Your task to perform on an android device: see sites visited before in the chrome app Image 0: 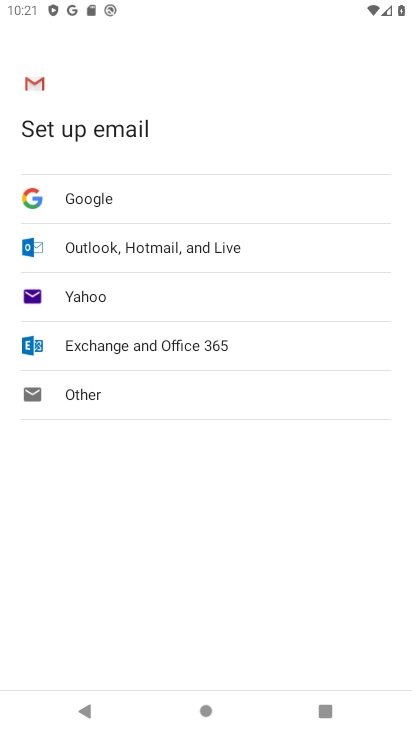
Step 0: press home button
Your task to perform on an android device: see sites visited before in the chrome app Image 1: 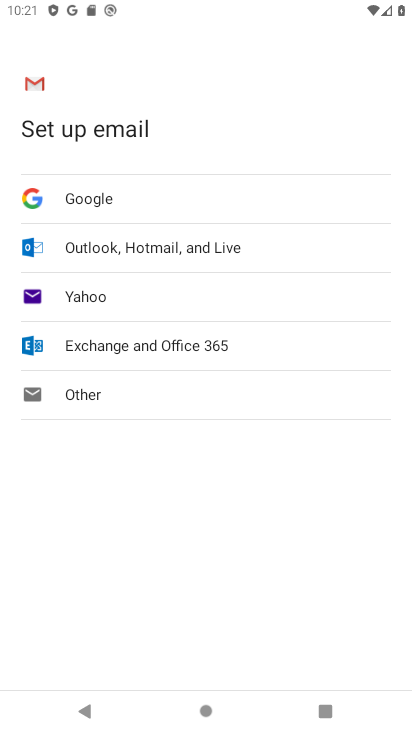
Step 1: press home button
Your task to perform on an android device: see sites visited before in the chrome app Image 2: 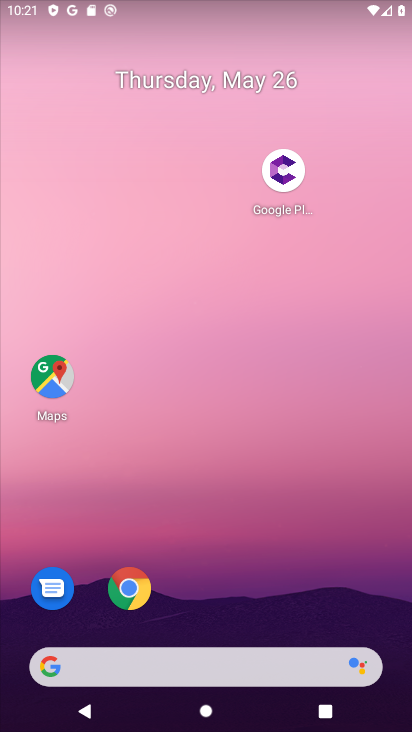
Step 2: drag from (281, 700) to (101, 2)
Your task to perform on an android device: see sites visited before in the chrome app Image 3: 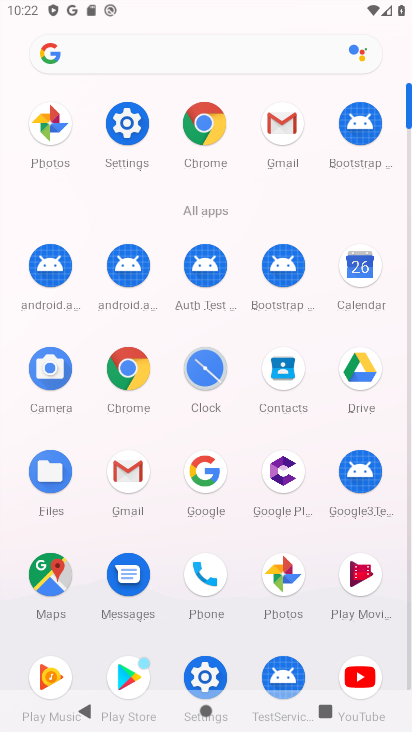
Step 3: click (185, 138)
Your task to perform on an android device: see sites visited before in the chrome app Image 4: 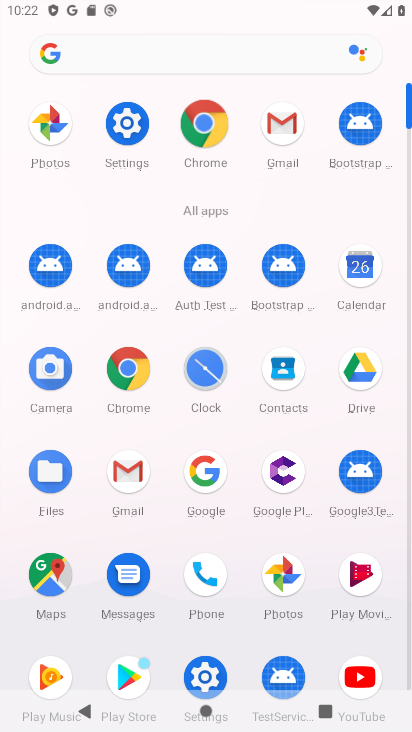
Step 4: click (197, 145)
Your task to perform on an android device: see sites visited before in the chrome app Image 5: 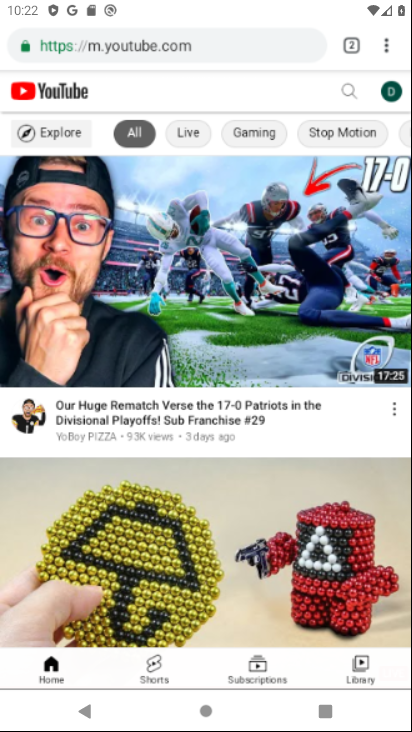
Step 5: click (199, 143)
Your task to perform on an android device: see sites visited before in the chrome app Image 6: 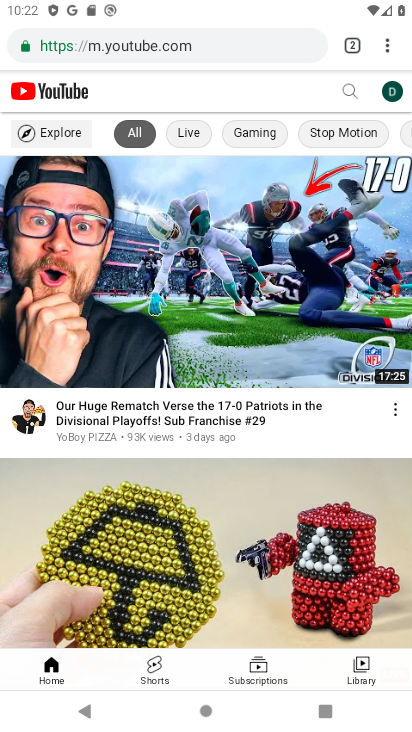
Step 6: drag from (378, 48) to (221, 503)
Your task to perform on an android device: see sites visited before in the chrome app Image 7: 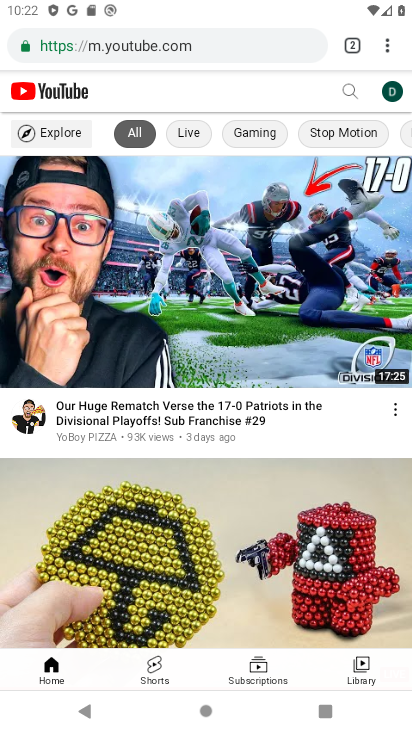
Step 7: click (220, 500)
Your task to perform on an android device: see sites visited before in the chrome app Image 8: 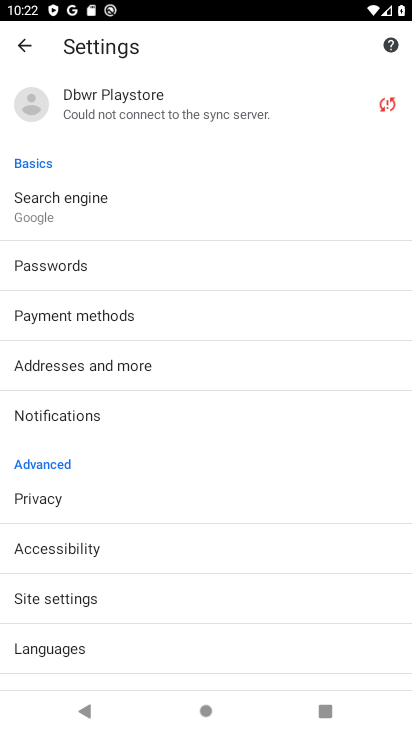
Step 8: click (18, 42)
Your task to perform on an android device: see sites visited before in the chrome app Image 9: 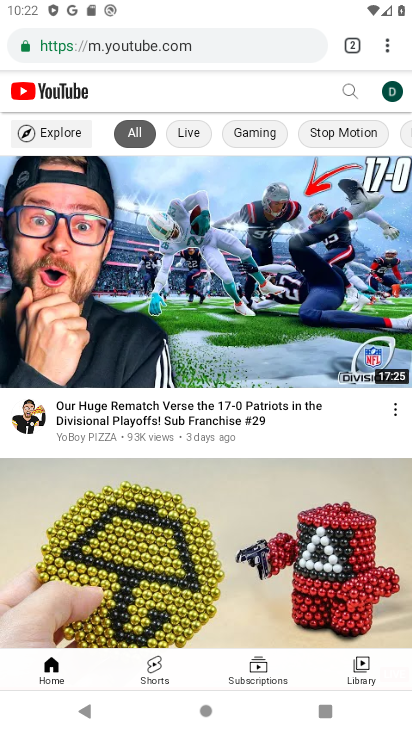
Step 9: click (388, 49)
Your task to perform on an android device: see sites visited before in the chrome app Image 10: 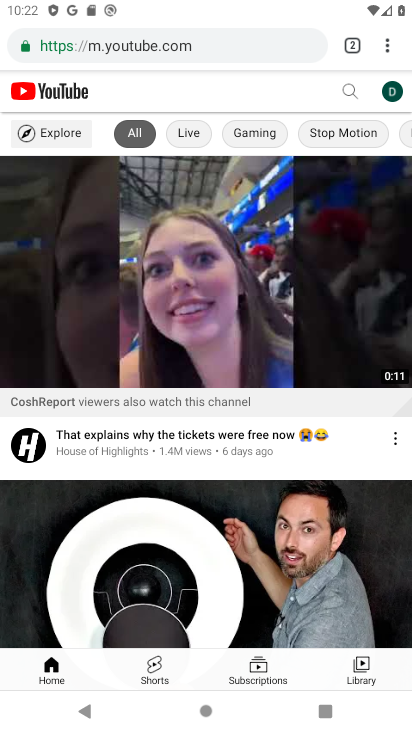
Step 10: task complete